Your task to perform on an android device: Check the weather Image 0: 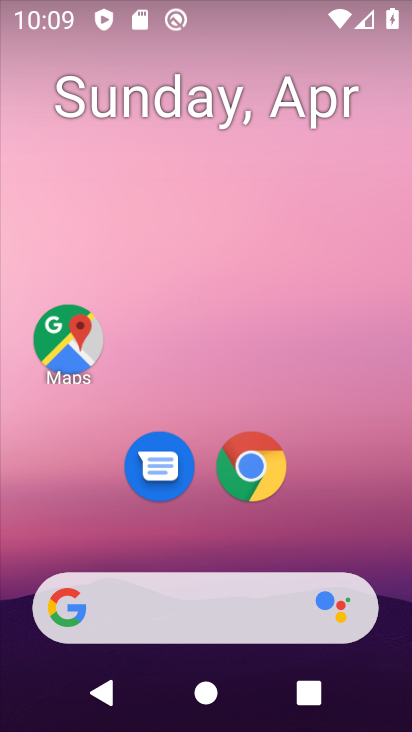
Step 0: click (213, 610)
Your task to perform on an android device: Check the weather Image 1: 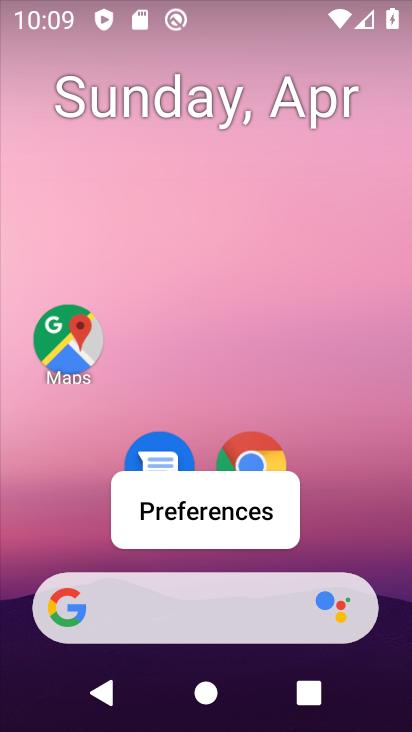
Step 1: click (226, 599)
Your task to perform on an android device: Check the weather Image 2: 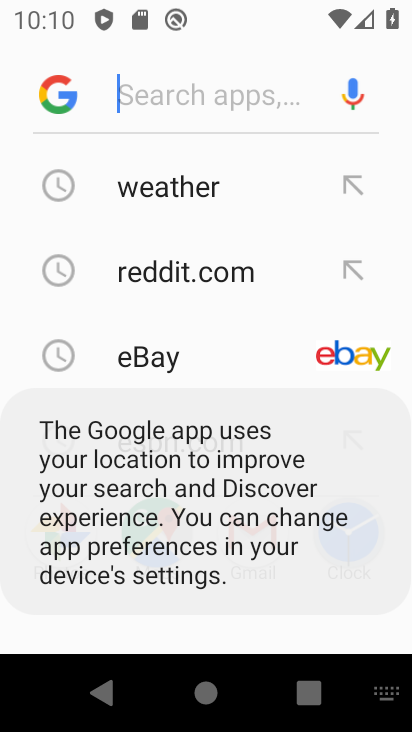
Step 2: click (180, 199)
Your task to perform on an android device: Check the weather Image 3: 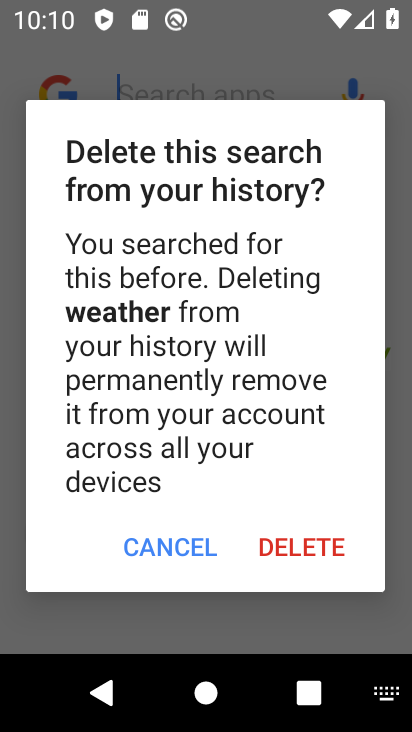
Step 3: click (181, 556)
Your task to perform on an android device: Check the weather Image 4: 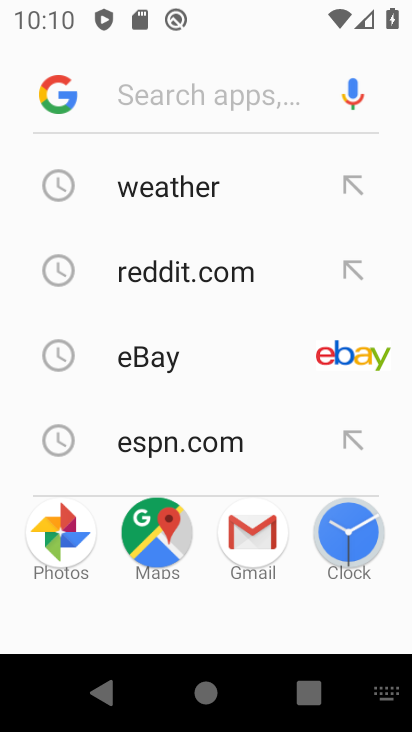
Step 4: click (159, 189)
Your task to perform on an android device: Check the weather Image 5: 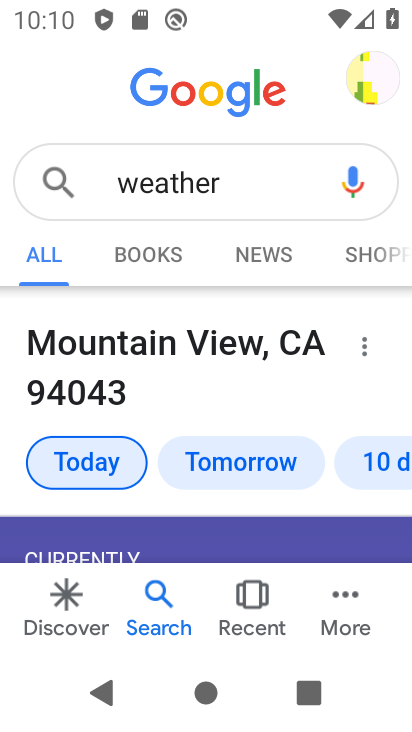
Step 5: task complete